Your task to perform on an android device: Open Google Chrome and click the shortcut for Amazon.com Image 0: 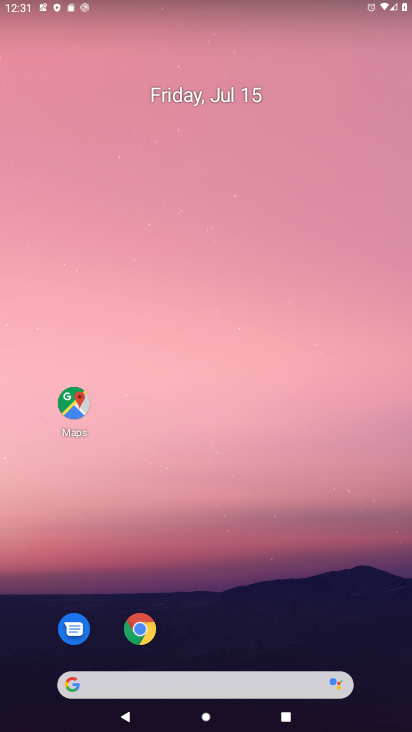
Step 0: press home button
Your task to perform on an android device: Open Google Chrome and click the shortcut for Amazon.com Image 1: 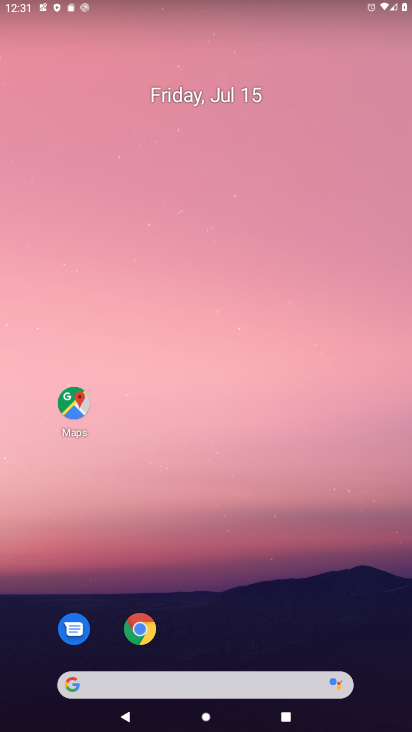
Step 1: drag from (232, 582) to (141, 11)
Your task to perform on an android device: Open Google Chrome and click the shortcut for Amazon.com Image 2: 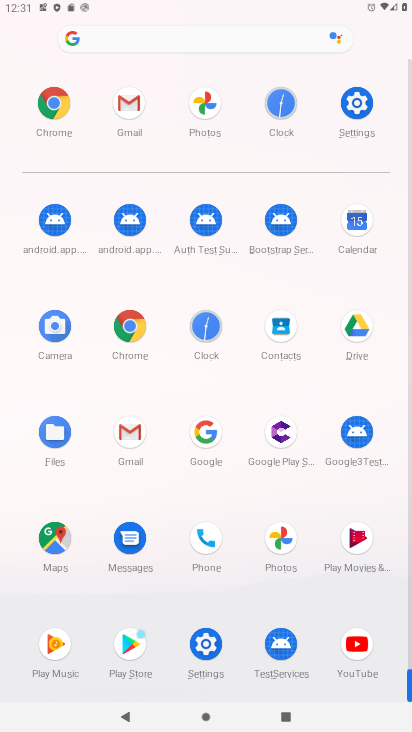
Step 2: click (60, 117)
Your task to perform on an android device: Open Google Chrome and click the shortcut for Amazon.com Image 3: 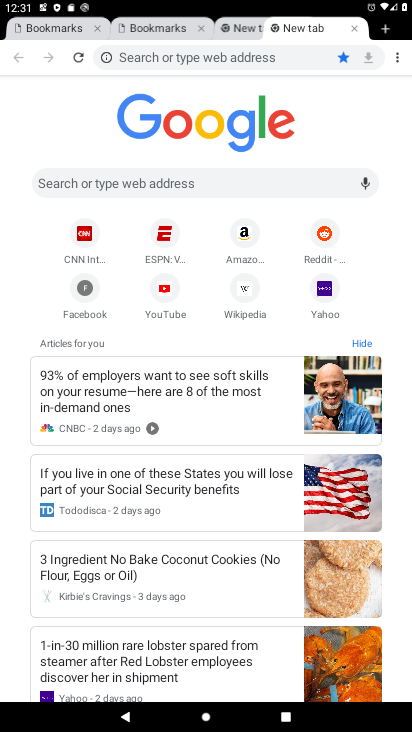
Step 3: click (241, 230)
Your task to perform on an android device: Open Google Chrome and click the shortcut for Amazon.com Image 4: 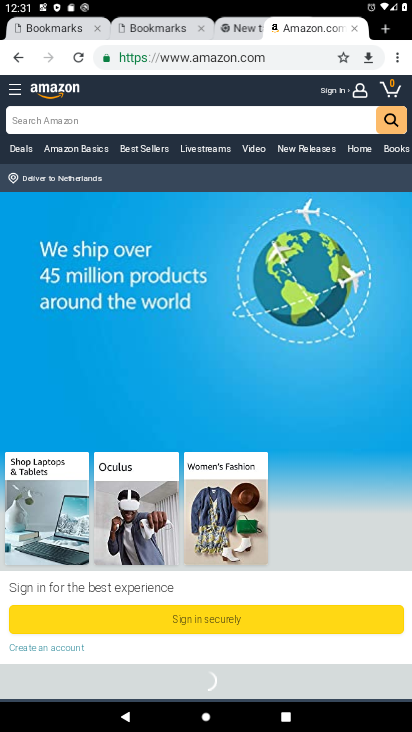
Step 4: task complete